Your task to perform on an android device: toggle priority inbox in the gmail app Image 0: 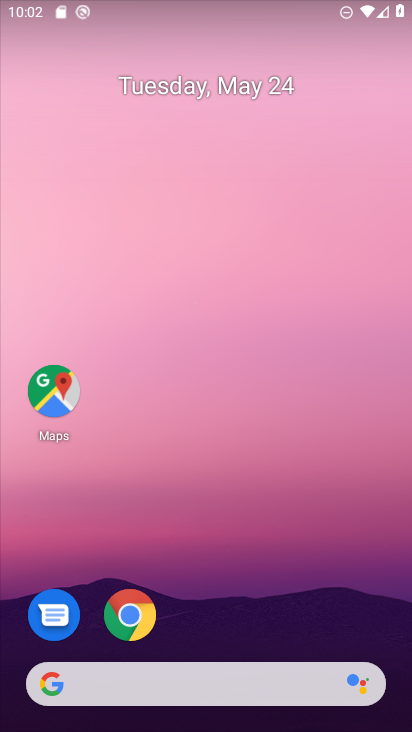
Step 0: drag from (367, 623) to (378, 218)
Your task to perform on an android device: toggle priority inbox in the gmail app Image 1: 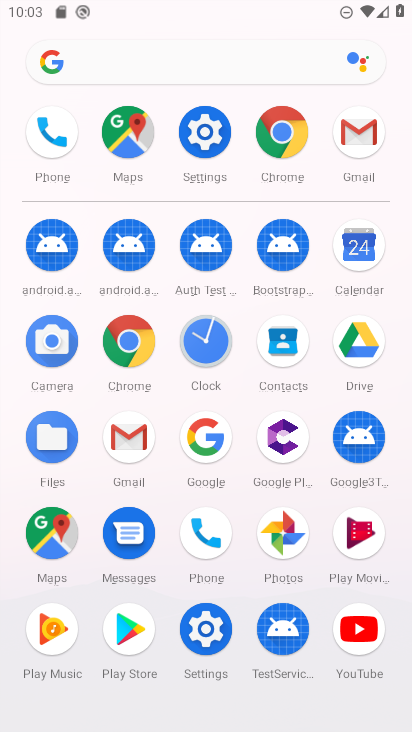
Step 1: click (148, 439)
Your task to perform on an android device: toggle priority inbox in the gmail app Image 2: 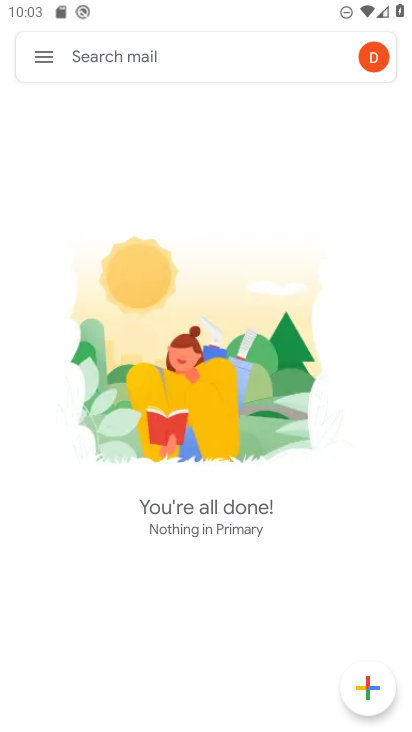
Step 2: click (34, 61)
Your task to perform on an android device: toggle priority inbox in the gmail app Image 3: 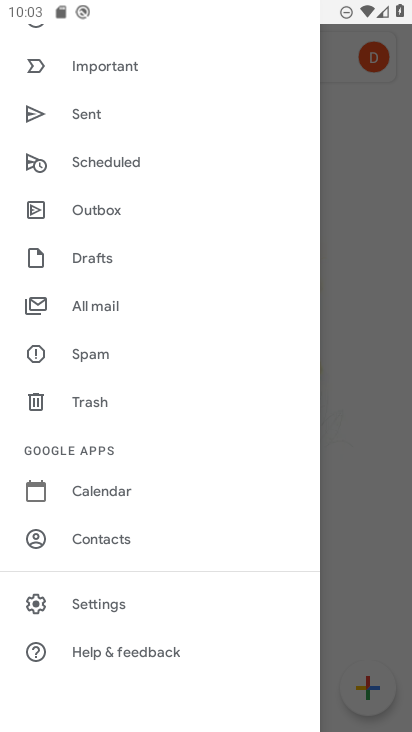
Step 3: click (180, 610)
Your task to perform on an android device: toggle priority inbox in the gmail app Image 4: 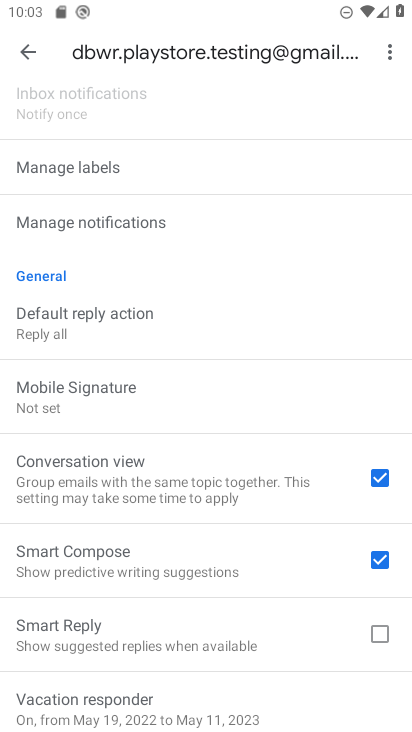
Step 4: drag from (237, 338) to (242, 473)
Your task to perform on an android device: toggle priority inbox in the gmail app Image 5: 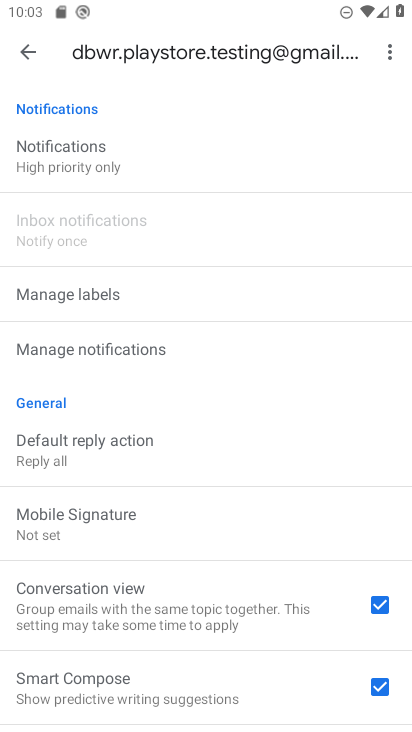
Step 5: drag from (253, 298) to (250, 414)
Your task to perform on an android device: toggle priority inbox in the gmail app Image 6: 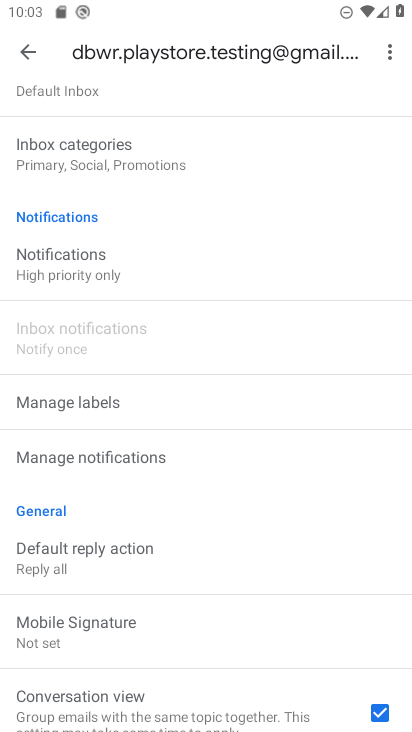
Step 6: drag from (262, 271) to (252, 420)
Your task to perform on an android device: toggle priority inbox in the gmail app Image 7: 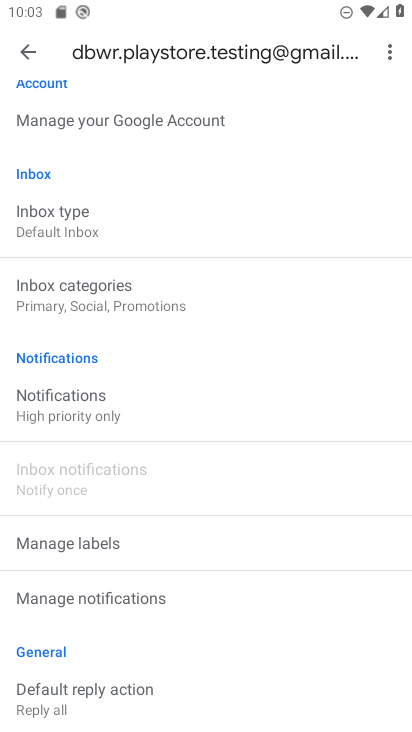
Step 7: drag from (279, 290) to (273, 424)
Your task to perform on an android device: toggle priority inbox in the gmail app Image 8: 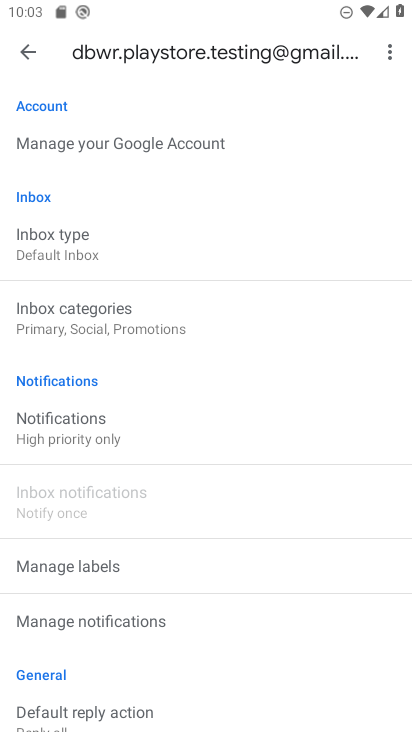
Step 8: drag from (292, 585) to (284, 476)
Your task to perform on an android device: toggle priority inbox in the gmail app Image 9: 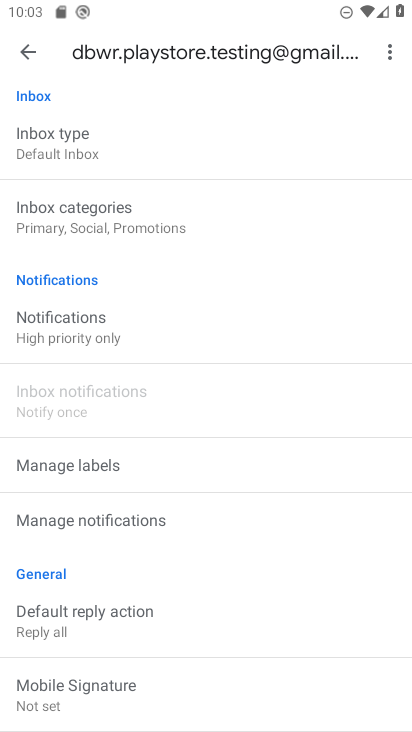
Step 9: drag from (281, 650) to (272, 531)
Your task to perform on an android device: toggle priority inbox in the gmail app Image 10: 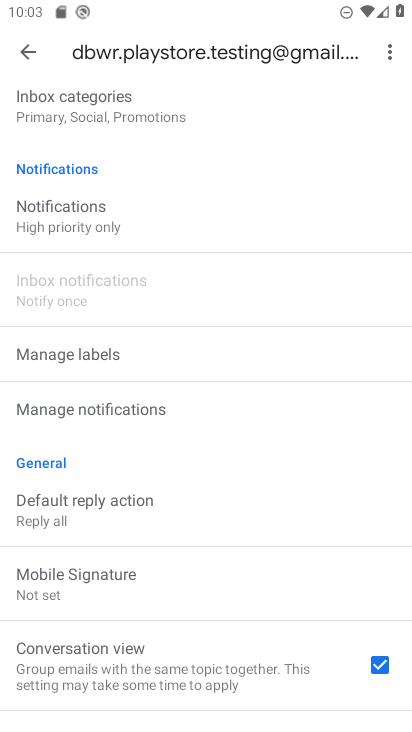
Step 10: drag from (266, 670) to (269, 558)
Your task to perform on an android device: toggle priority inbox in the gmail app Image 11: 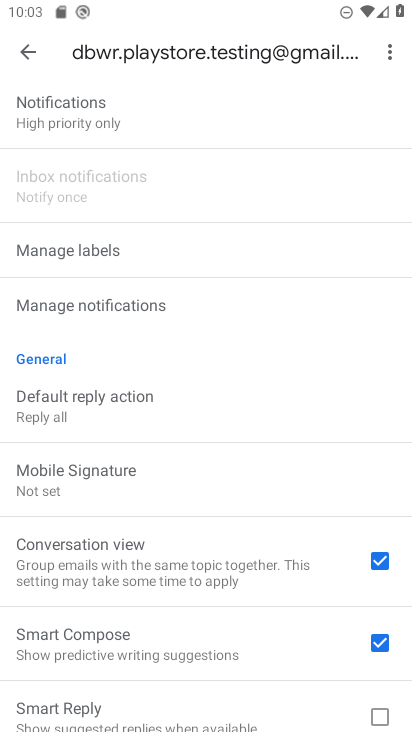
Step 11: drag from (269, 671) to (276, 599)
Your task to perform on an android device: toggle priority inbox in the gmail app Image 12: 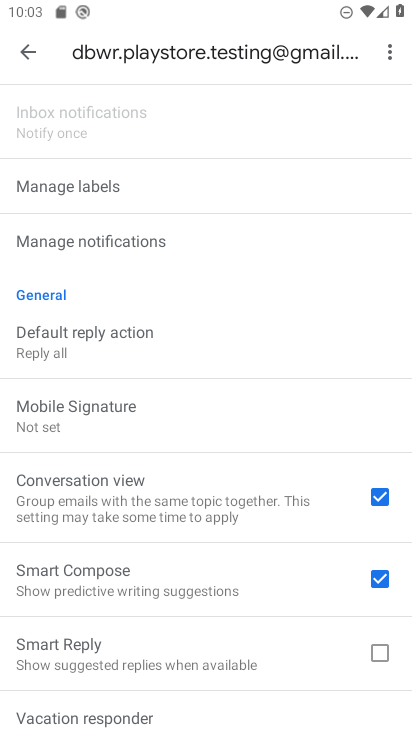
Step 12: drag from (285, 680) to (284, 588)
Your task to perform on an android device: toggle priority inbox in the gmail app Image 13: 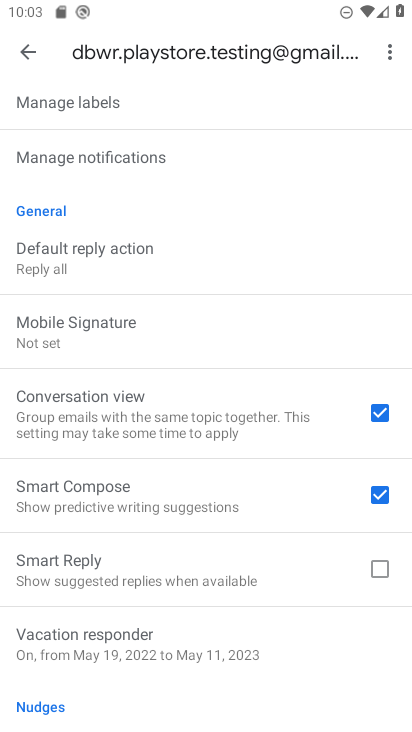
Step 13: drag from (272, 645) to (277, 538)
Your task to perform on an android device: toggle priority inbox in the gmail app Image 14: 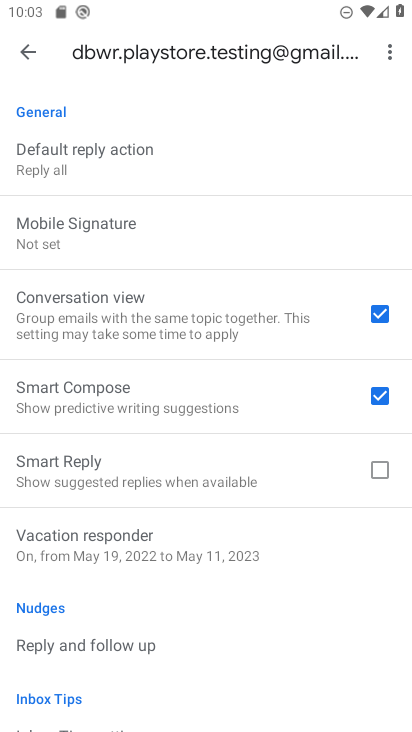
Step 14: drag from (297, 373) to (283, 495)
Your task to perform on an android device: toggle priority inbox in the gmail app Image 15: 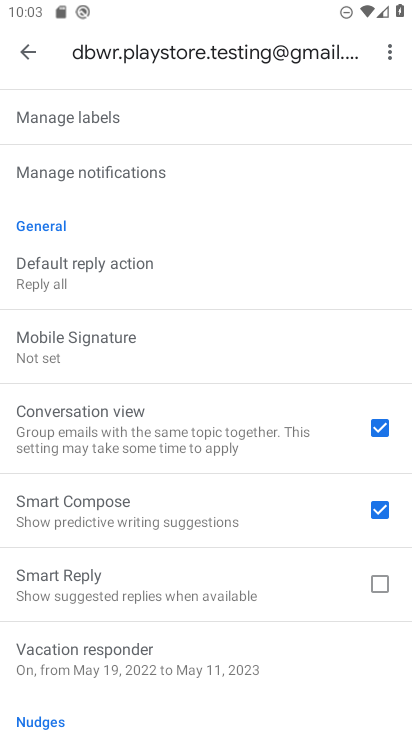
Step 15: drag from (278, 310) to (285, 460)
Your task to perform on an android device: toggle priority inbox in the gmail app Image 16: 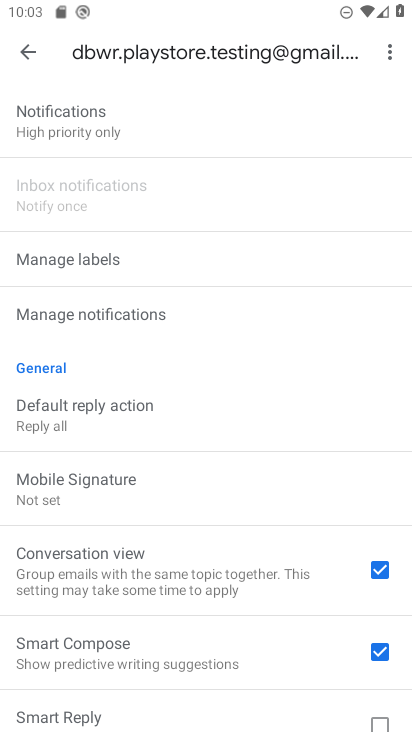
Step 16: drag from (289, 319) to (282, 413)
Your task to perform on an android device: toggle priority inbox in the gmail app Image 17: 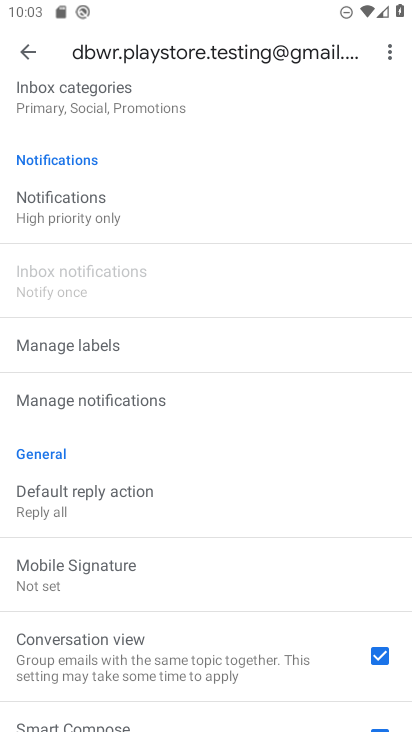
Step 17: drag from (270, 289) to (279, 432)
Your task to perform on an android device: toggle priority inbox in the gmail app Image 18: 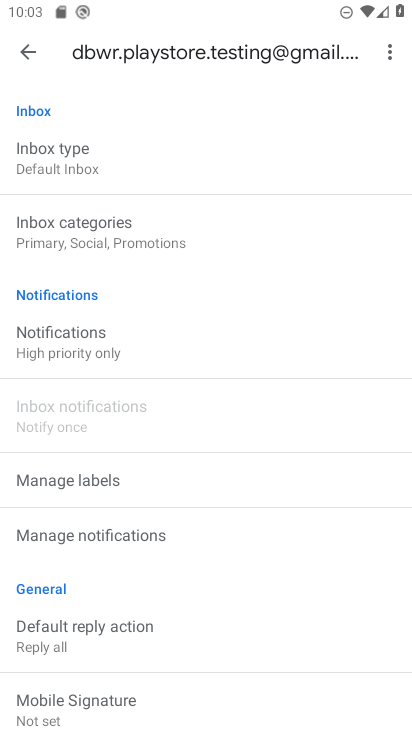
Step 18: drag from (261, 268) to (253, 432)
Your task to perform on an android device: toggle priority inbox in the gmail app Image 19: 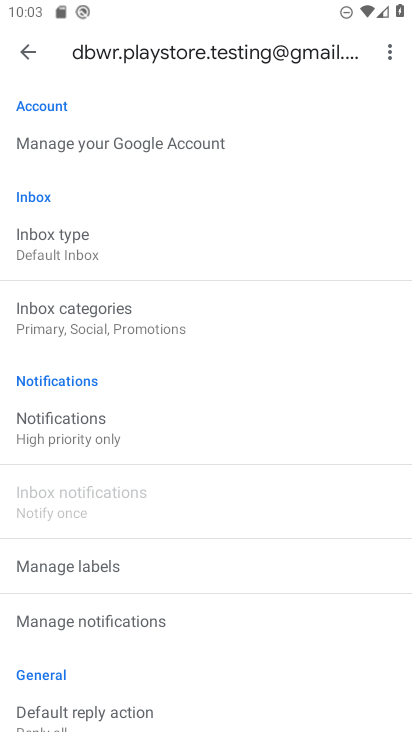
Step 19: drag from (252, 257) to (240, 413)
Your task to perform on an android device: toggle priority inbox in the gmail app Image 20: 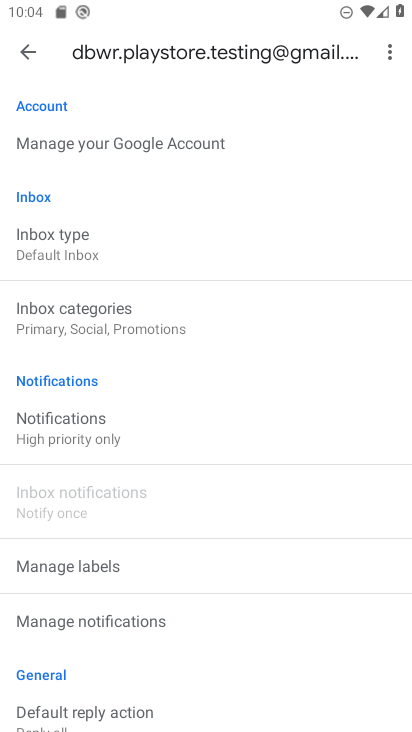
Step 20: click (83, 236)
Your task to perform on an android device: toggle priority inbox in the gmail app Image 21: 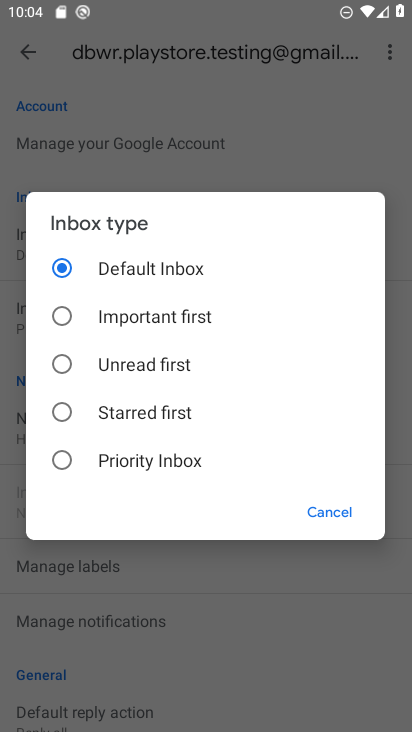
Step 21: click (102, 460)
Your task to perform on an android device: toggle priority inbox in the gmail app Image 22: 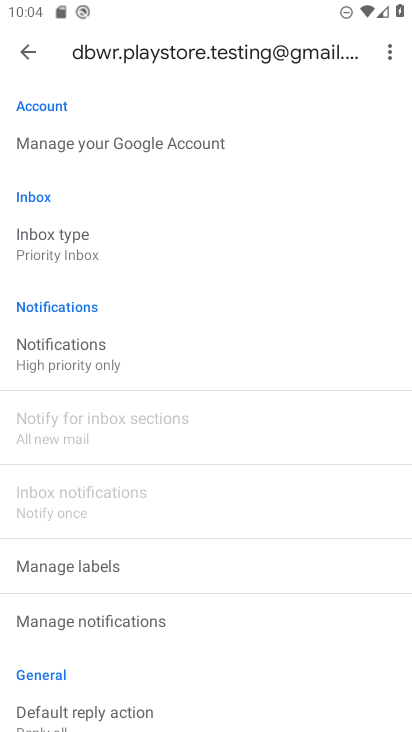
Step 22: task complete